Your task to perform on an android device: toggle data saver in the chrome app Image 0: 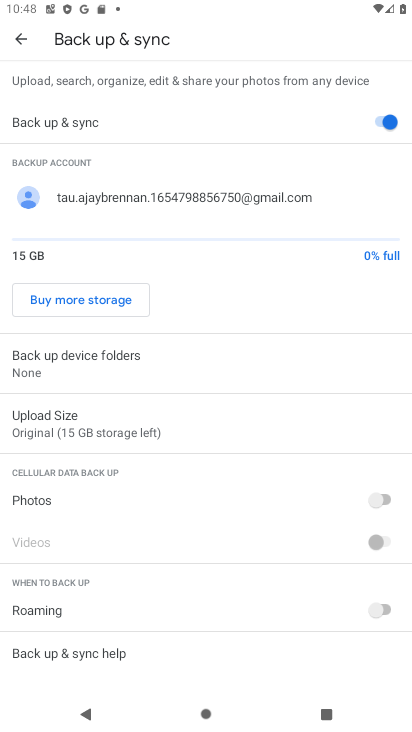
Step 0: press home button
Your task to perform on an android device: toggle data saver in the chrome app Image 1: 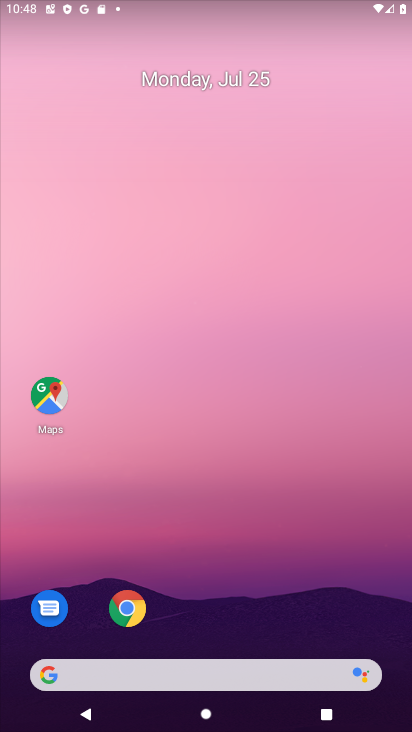
Step 1: drag from (220, 644) to (196, 151)
Your task to perform on an android device: toggle data saver in the chrome app Image 2: 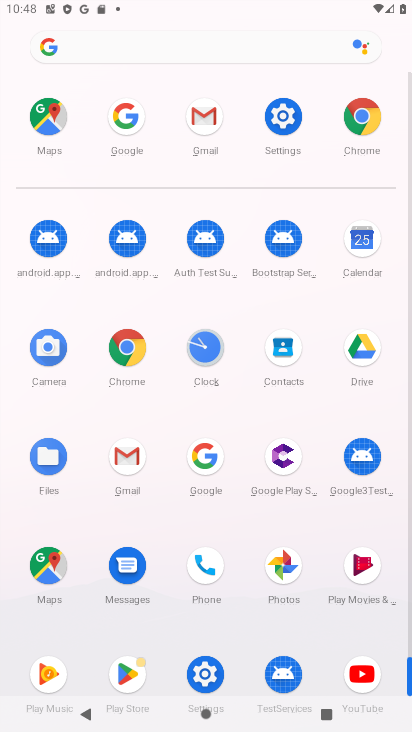
Step 2: click (360, 132)
Your task to perform on an android device: toggle data saver in the chrome app Image 3: 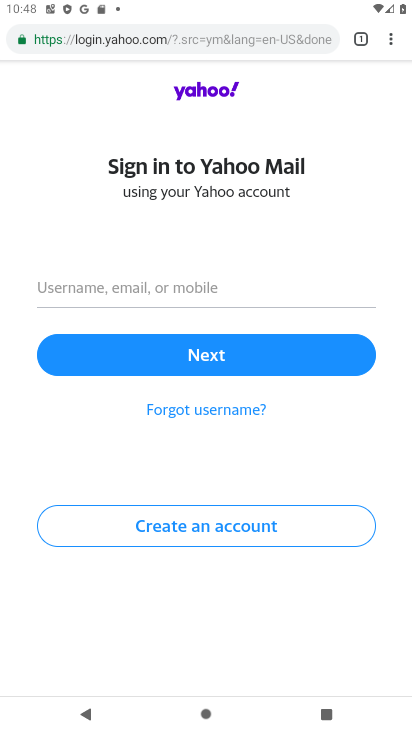
Step 3: click (390, 45)
Your task to perform on an android device: toggle data saver in the chrome app Image 4: 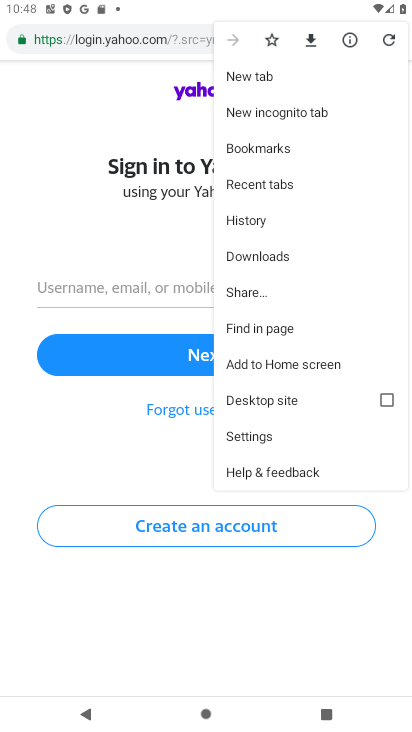
Step 4: click (255, 440)
Your task to perform on an android device: toggle data saver in the chrome app Image 5: 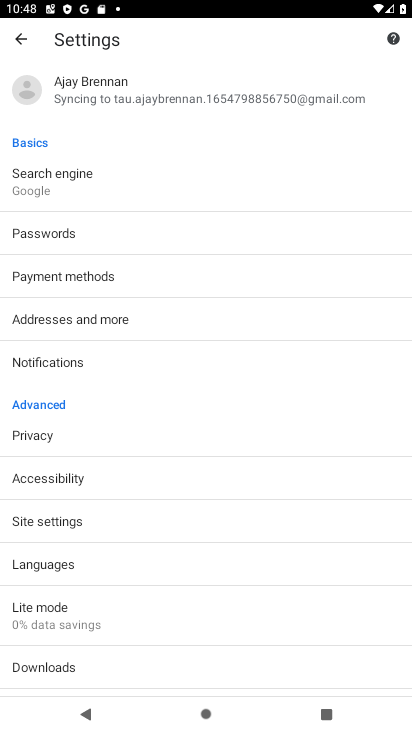
Step 5: click (100, 620)
Your task to perform on an android device: toggle data saver in the chrome app Image 6: 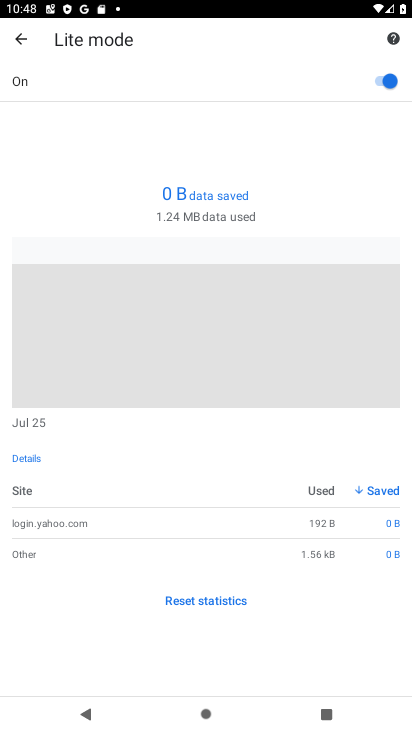
Step 6: click (372, 80)
Your task to perform on an android device: toggle data saver in the chrome app Image 7: 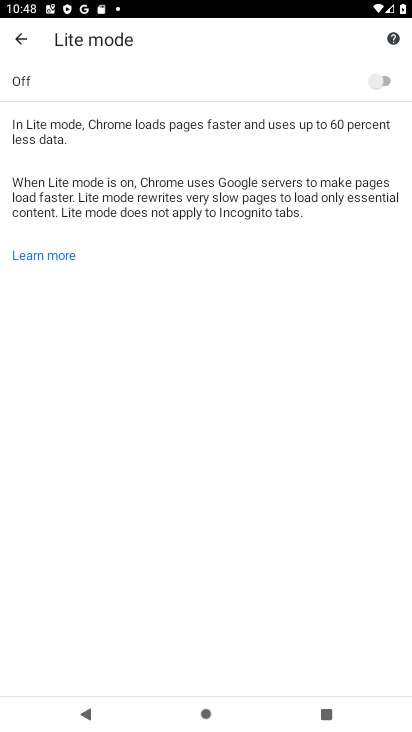
Step 7: task complete